Your task to perform on an android device: open a new tab in the chrome app Image 0: 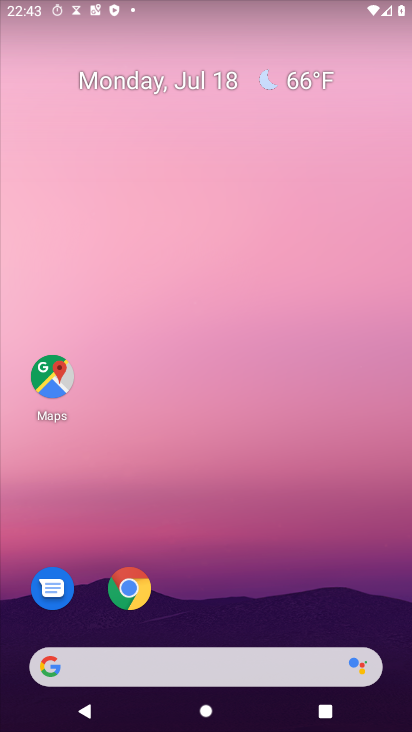
Step 0: press home button
Your task to perform on an android device: open a new tab in the chrome app Image 1: 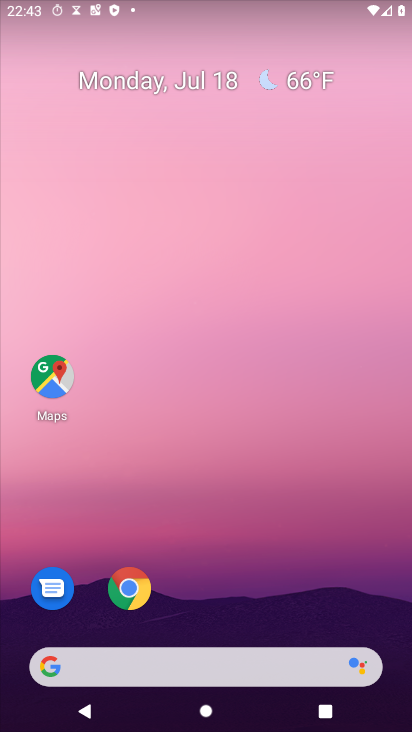
Step 1: click (131, 595)
Your task to perform on an android device: open a new tab in the chrome app Image 2: 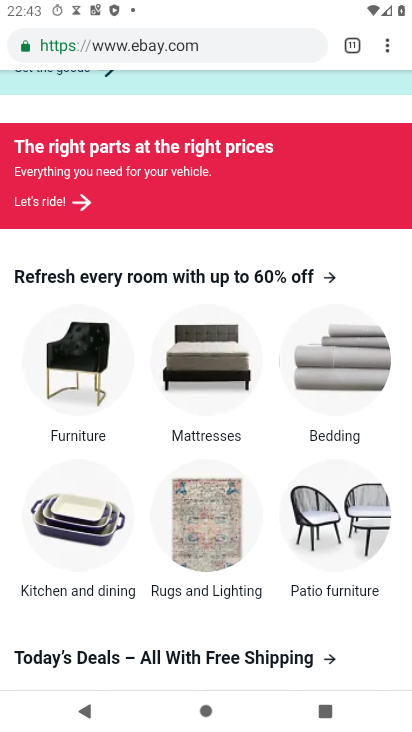
Step 2: task complete